Your task to perform on an android device: View the shopping cart on ebay. Search for amazon basics triple a on ebay, select the first entry, add it to the cart, then select checkout. Image 0: 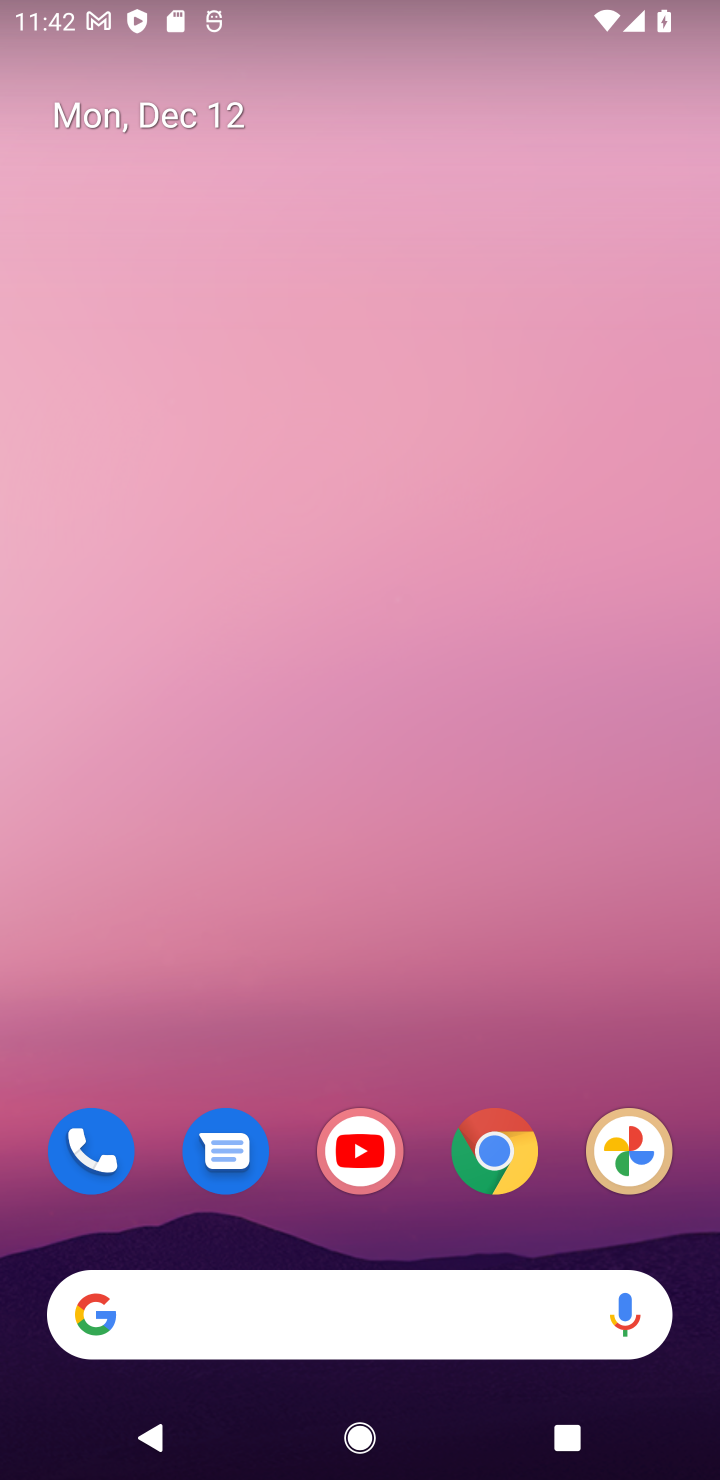
Step 0: drag from (433, 1277) to (439, 568)
Your task to perform on an android device: View the shopping cart on ebay. Search for amazon basics triple a on ebay, select the first entry, add it to the cart, then select checkout. Image 1: 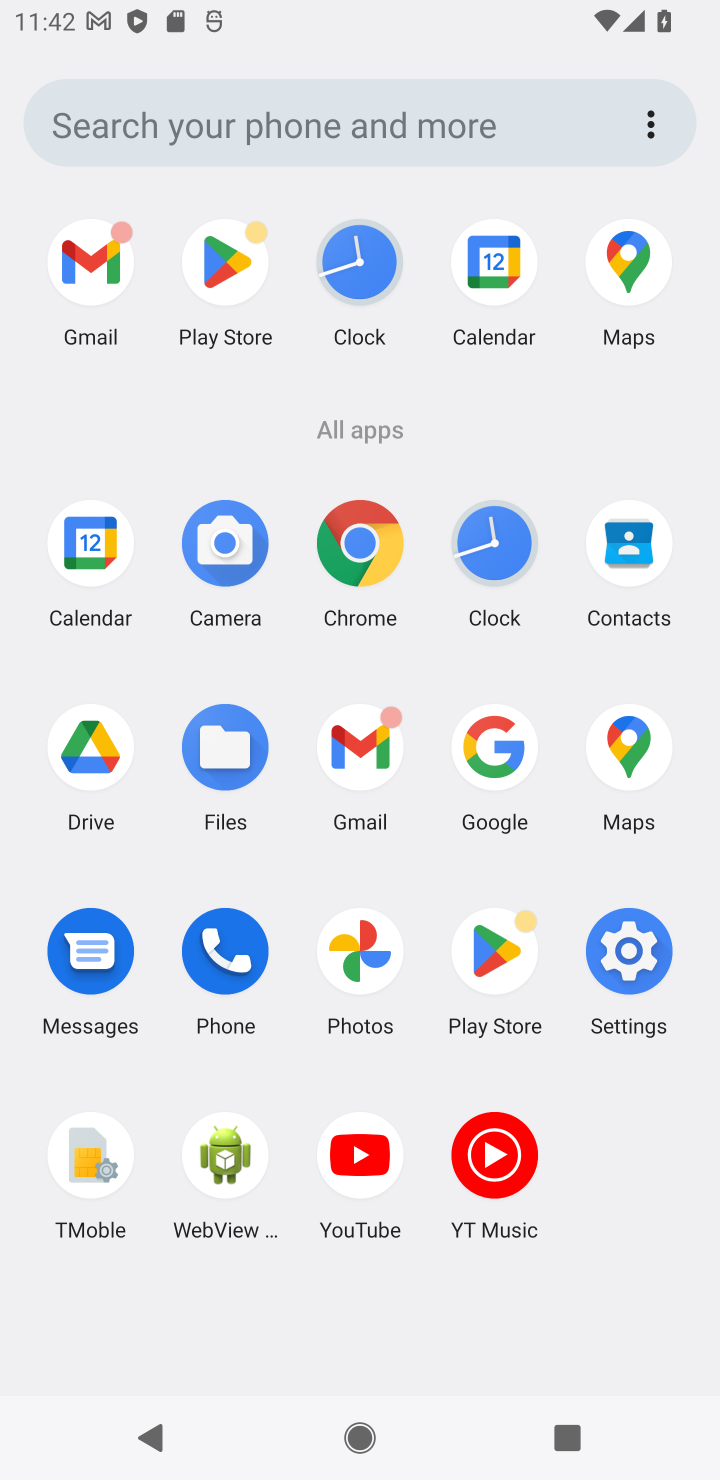
Step 1: click (490, 756)
Your task to perform on an android device: View the shopping cart on ebay. Search for amazon basics triple a on ebay, select the first entry, add it to the cart, then select checkout. Image 2: 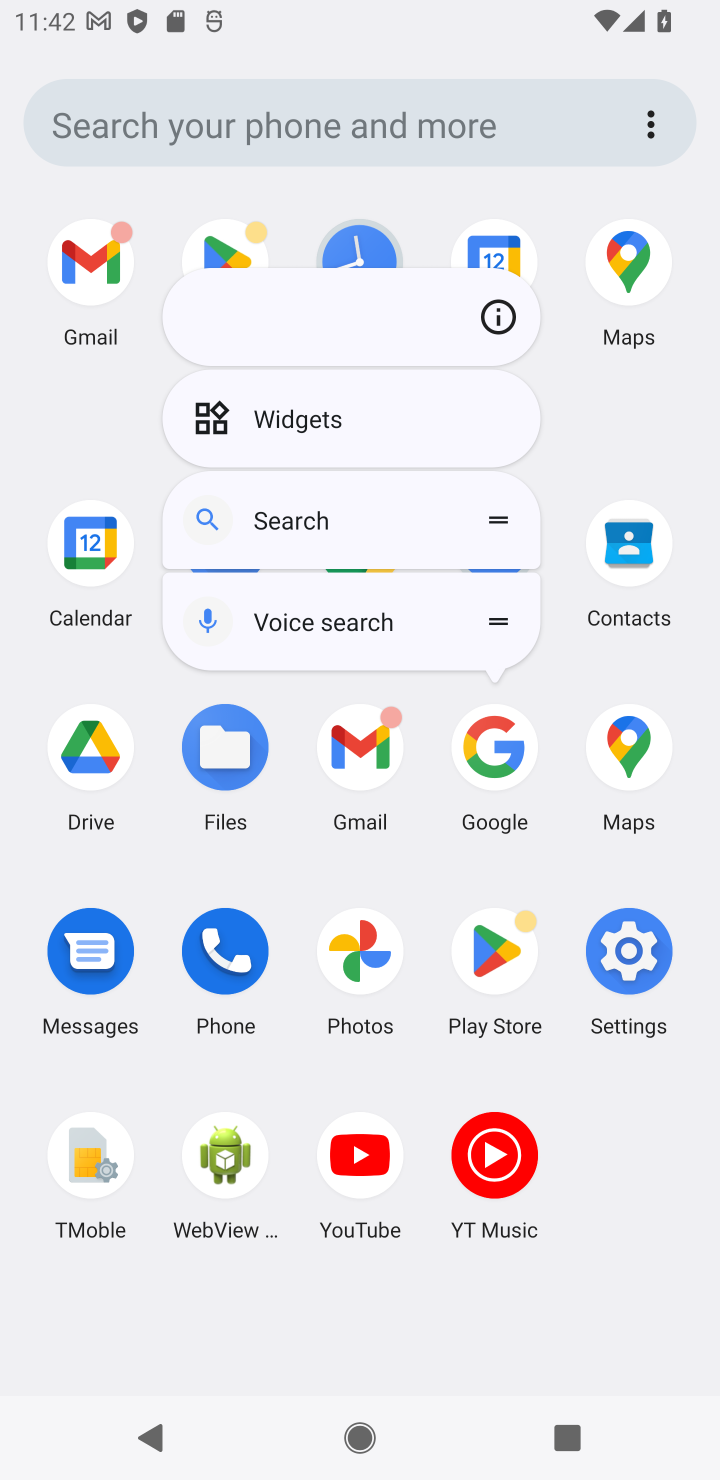
Step 2: click (506, 769)
Your task to perform on an android device: View the shopping cart on ebay. Search for amazon basics triple a on ebay, select the first entry, add it to the cart, then select checkout. Image 3: 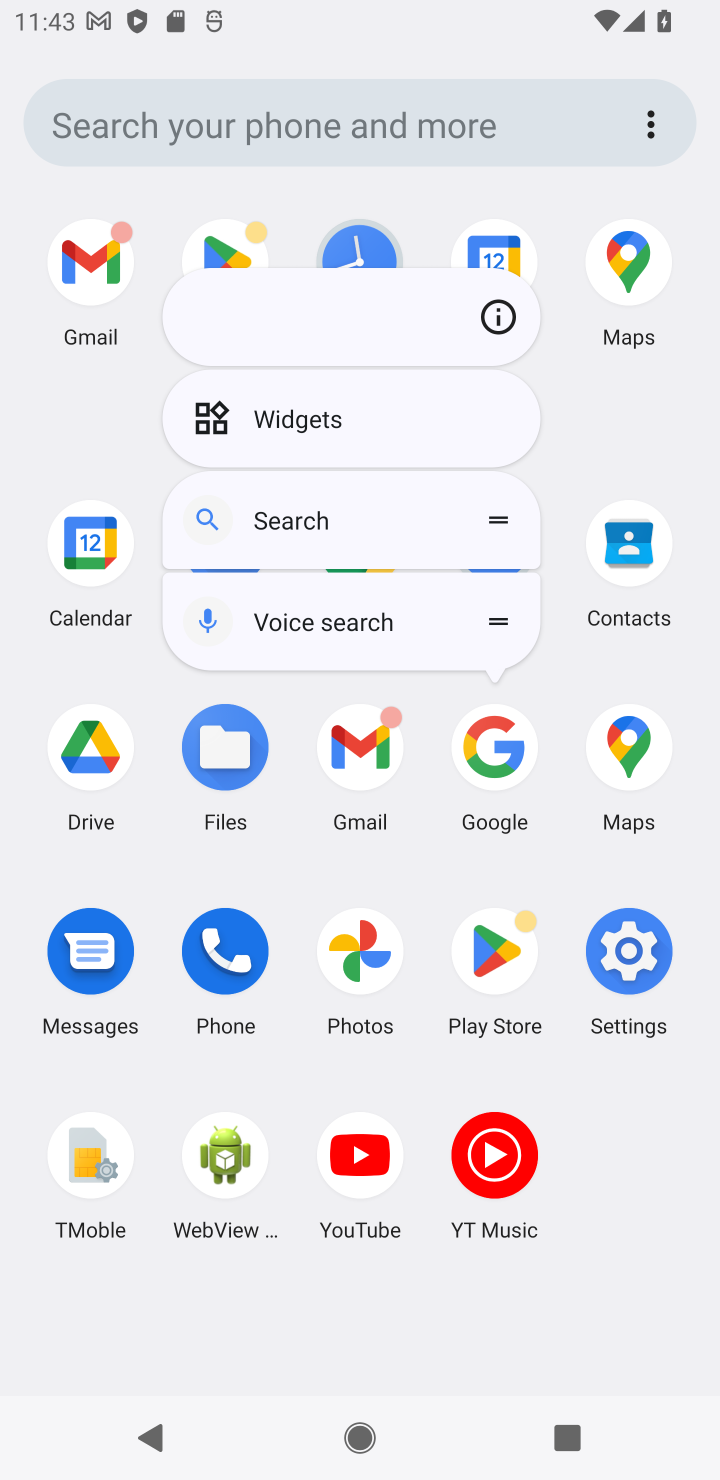
Step 3: click (499, 756)
Your task to perform on an android device: View the shopping cart on ebay. Search for amazon basics triple a on ebay, select the first entry, add it to the cart, then select checkout. Image 4: 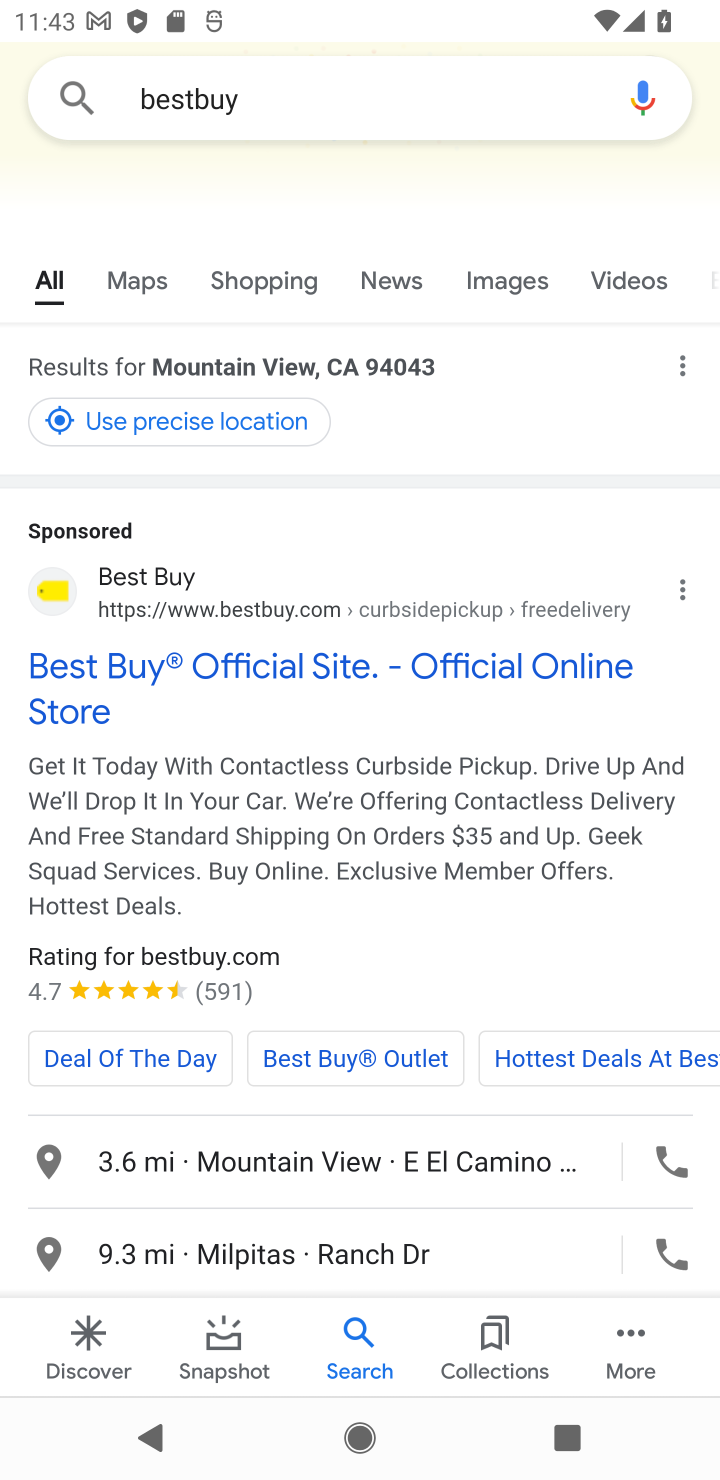
Step 4: click (251, 94)
Your task to perform on an android device: View the shopping cart on ebay. Search for amazon basics triple a on ebay, select the first entry, add it to the cart, then select checkout. Image 5: 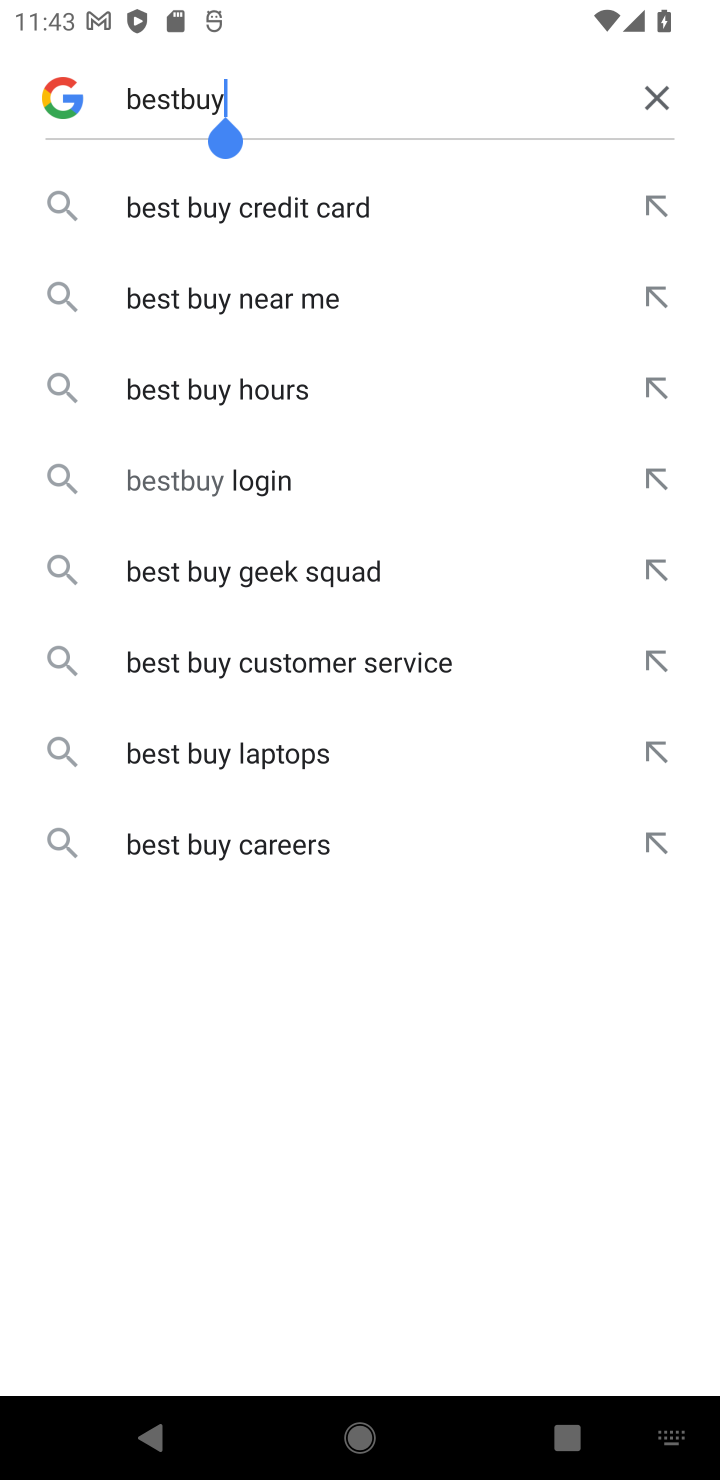
Step 5: click (659, 97)
Your task to perform on an android device: View the shopping cart on ebay. Search for amazon basics triple a on ebay, select the first entry, add it to the cart, then select checkout. Image 6: 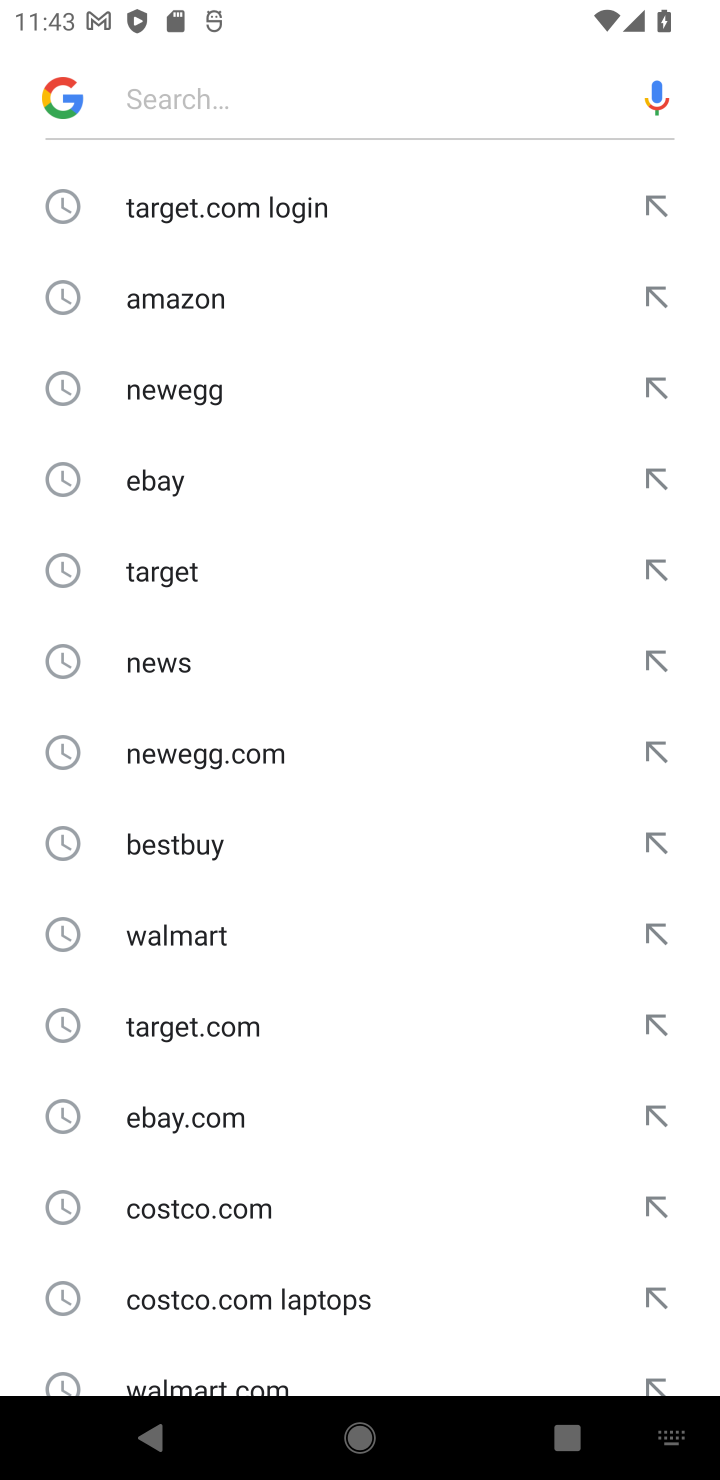
Step 6: click (169, 481)
Your task to perform on an android device: View the shopping cart on ebay. Search for amazon basics triple a on ebay, select the first entry, add it to the cart, then select checkout. Image 7: 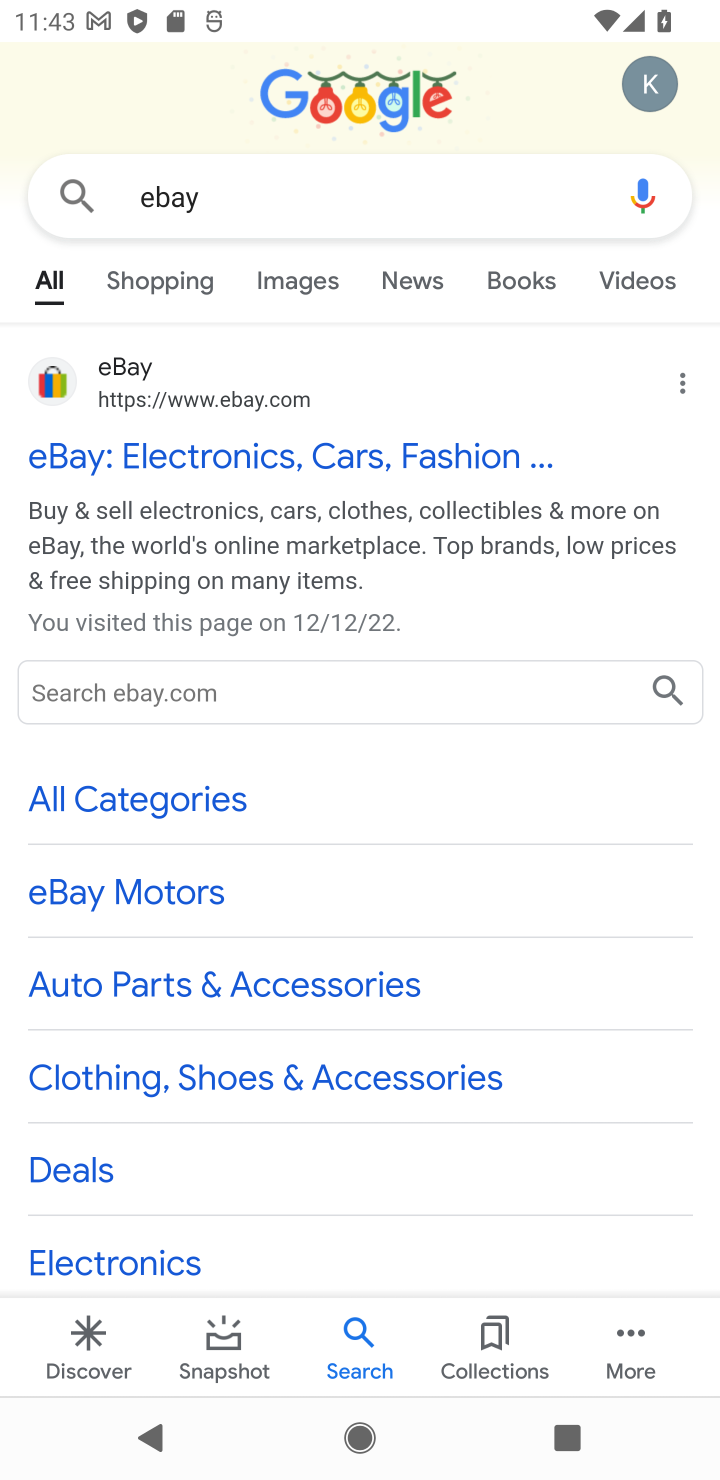
Step 7: click (168, 474)
Your task to perform on an android device: View the shopping cart on ebay. Search for amazon basics triple a on ebay, select the first entry, add it to the cart, then select checkout. Image 8: 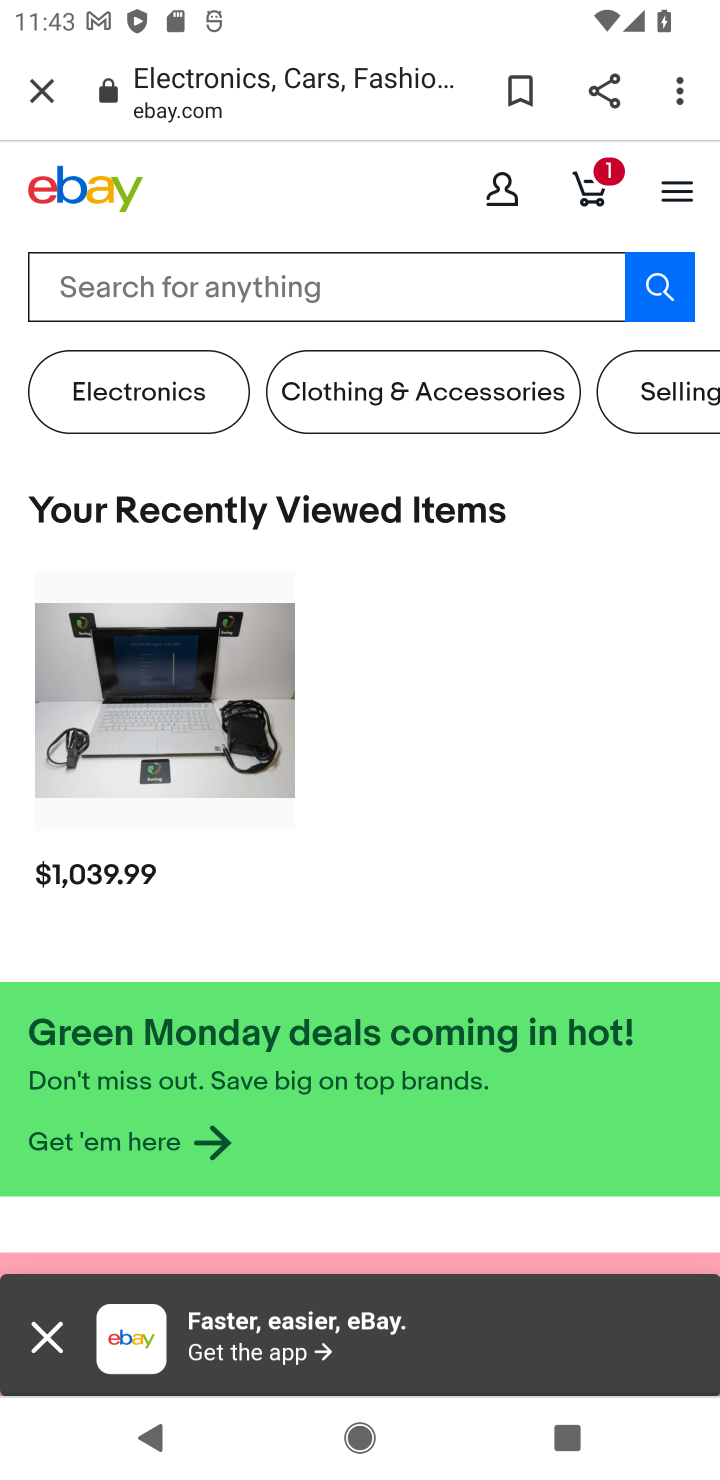
Step 8: click (599, 187)
Your task to perform on an android device: View the shopping cart on ebay. Search for amazon basics triple a on ebay, select the first entry, add it to the cart, then select checkout. Image 9: 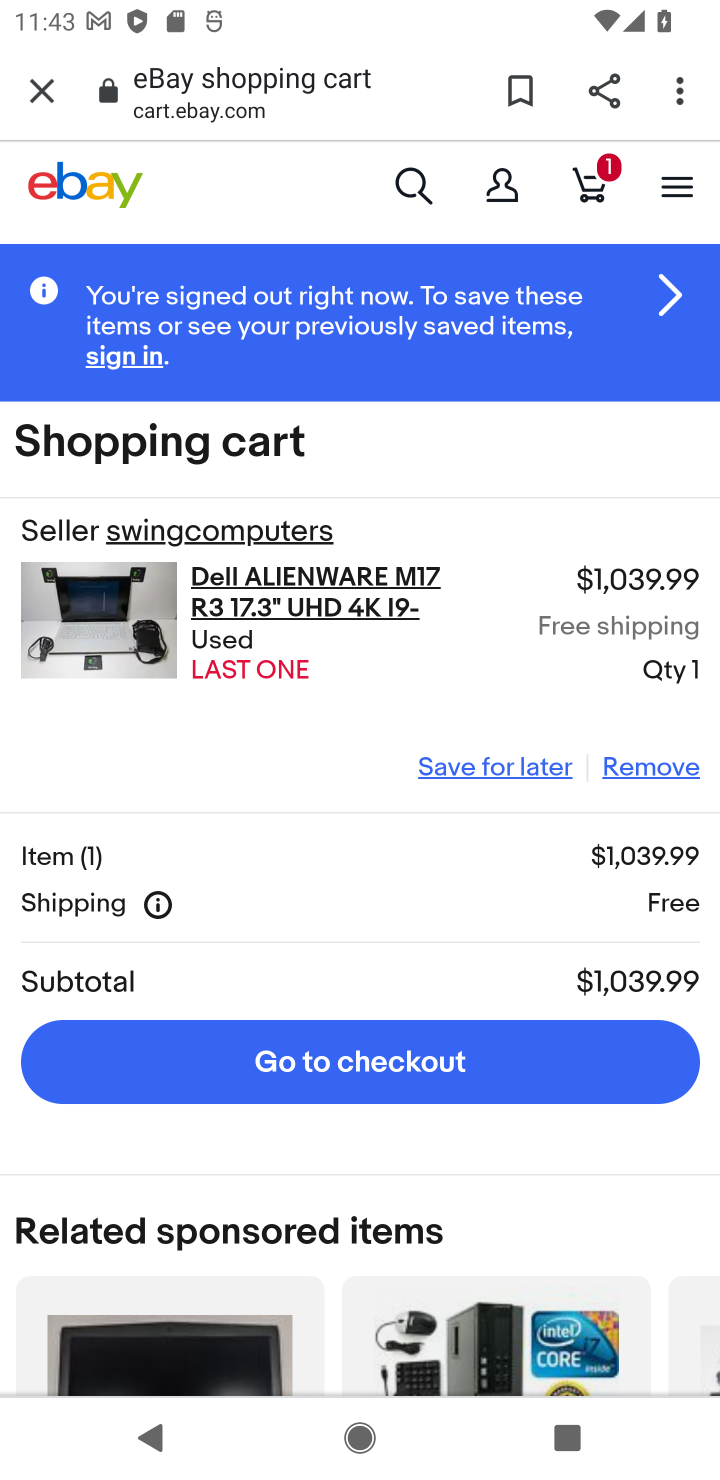
Step 9: click (420, 190)
Your task to perform on an android device: View the shopping cart on ebay. Search for amazon basics triple a on ebay, select the first entry, add it to the cart, then select checkout. Image 10: 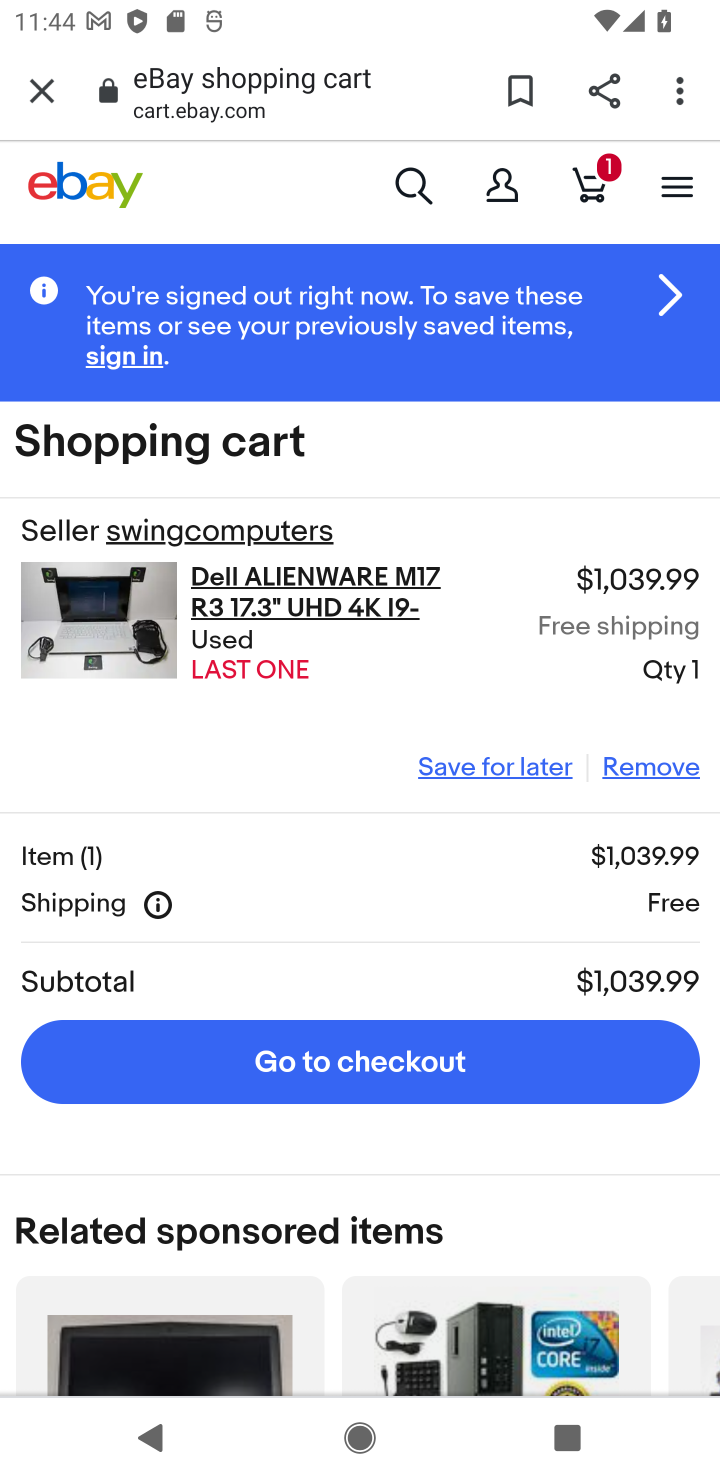
Step 10: click (407, 182)
Your task to perform on an android device: View the shopping cart on ebay. Search for amazon basics triple a on ebay, select the first entry, add it to the cart, then select checkout. Image 11: 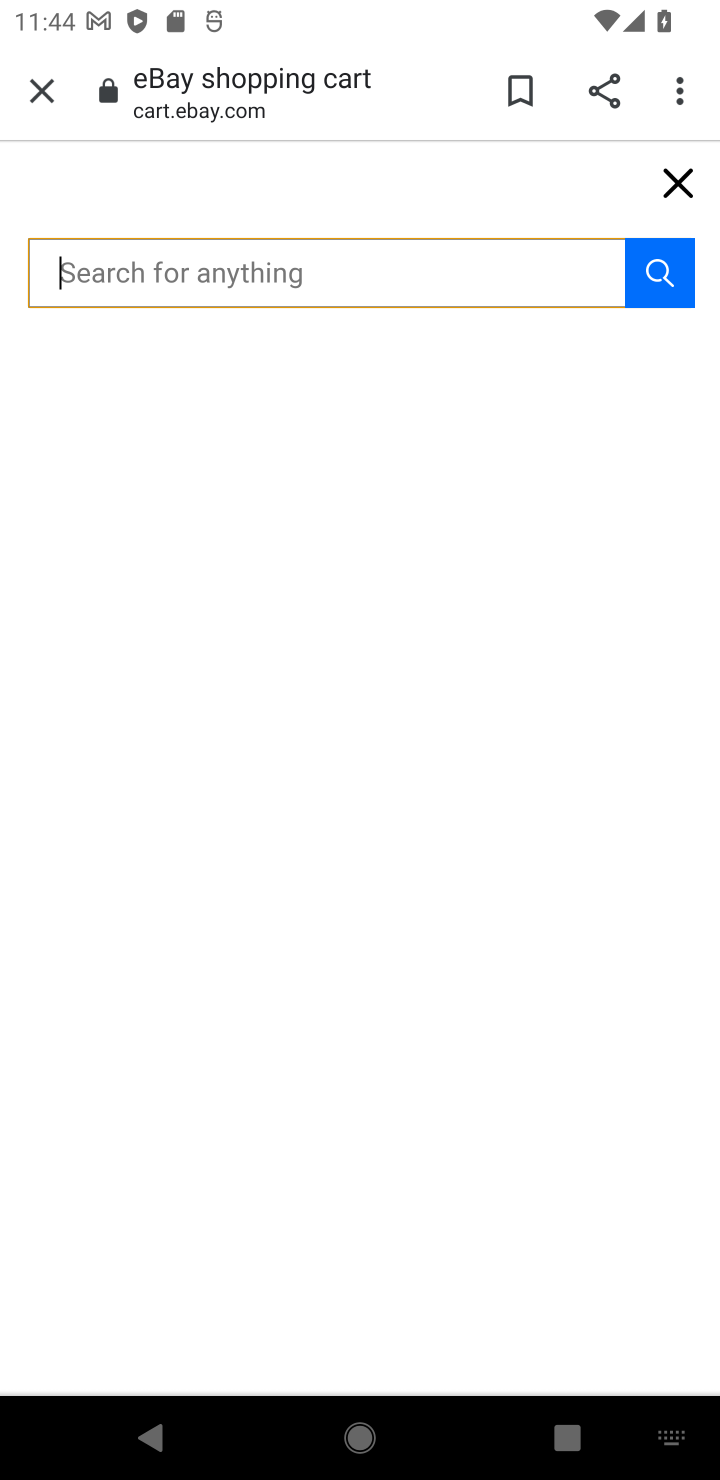
Step 11: type "amazon basics triple a"
Your task to perform on an android device: View the shopping cart on ebay. Search for amazon basics triple a on ebay, select the first entry, add it to the cart, then select checkout. Image 12: 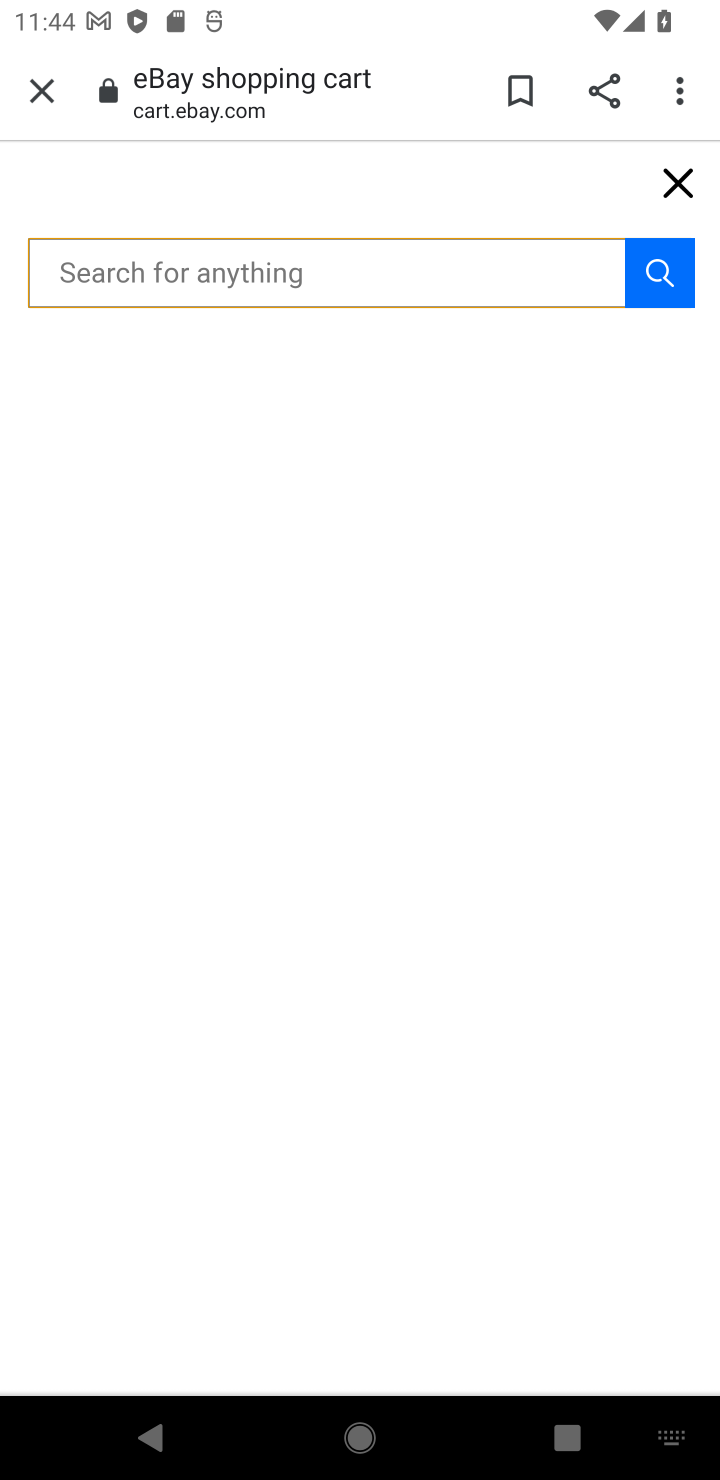
Step 12: click (646, 267)
Your task to perform on an android device: View the shopping cart on ebay. Search for amazon basics triple a on ebay, select the first entry, add it to the cart, then select checkout. Image 13: 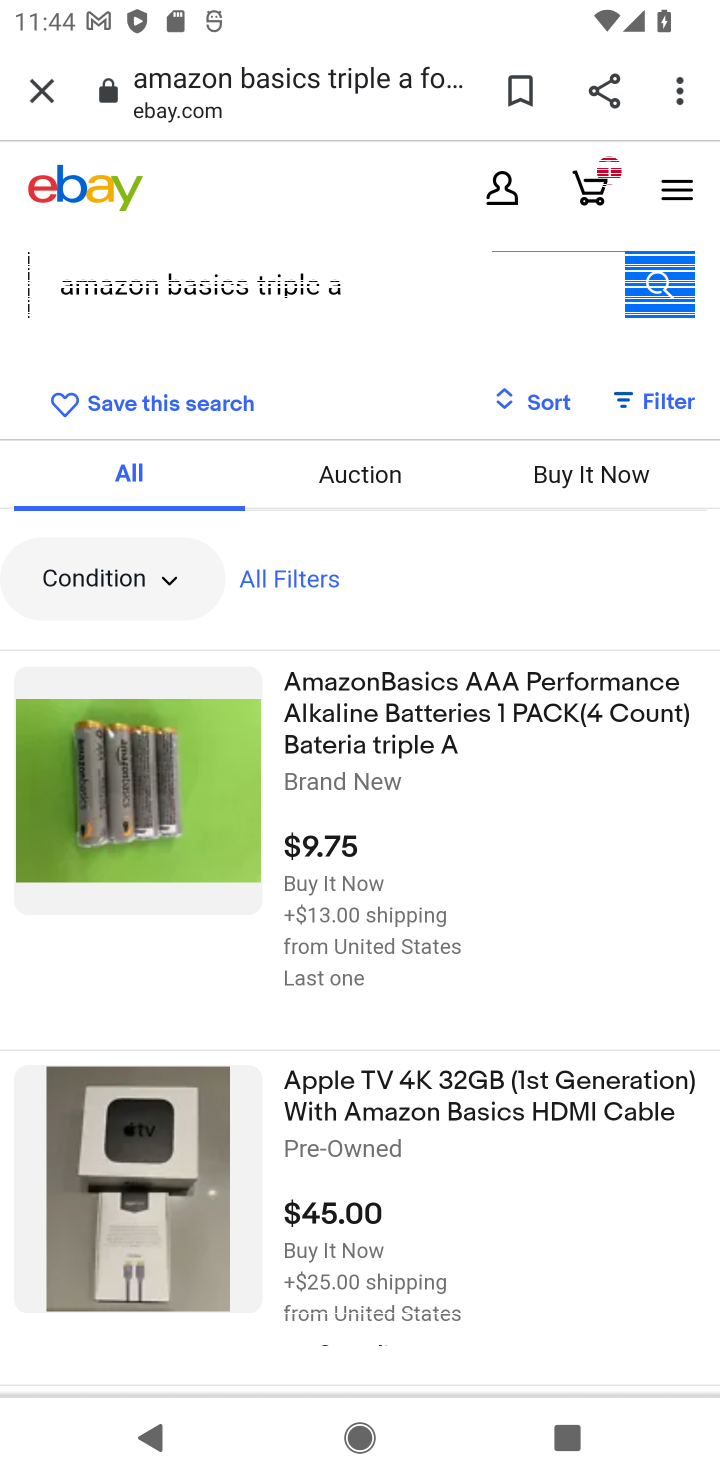
Step 13: click (477, 699)
Your task to perform on an android device: View the shopping cart on ebay. Search for amazon basics triple a on ebay, select the first entry, add it to the cart, then select checkout. Image 14: 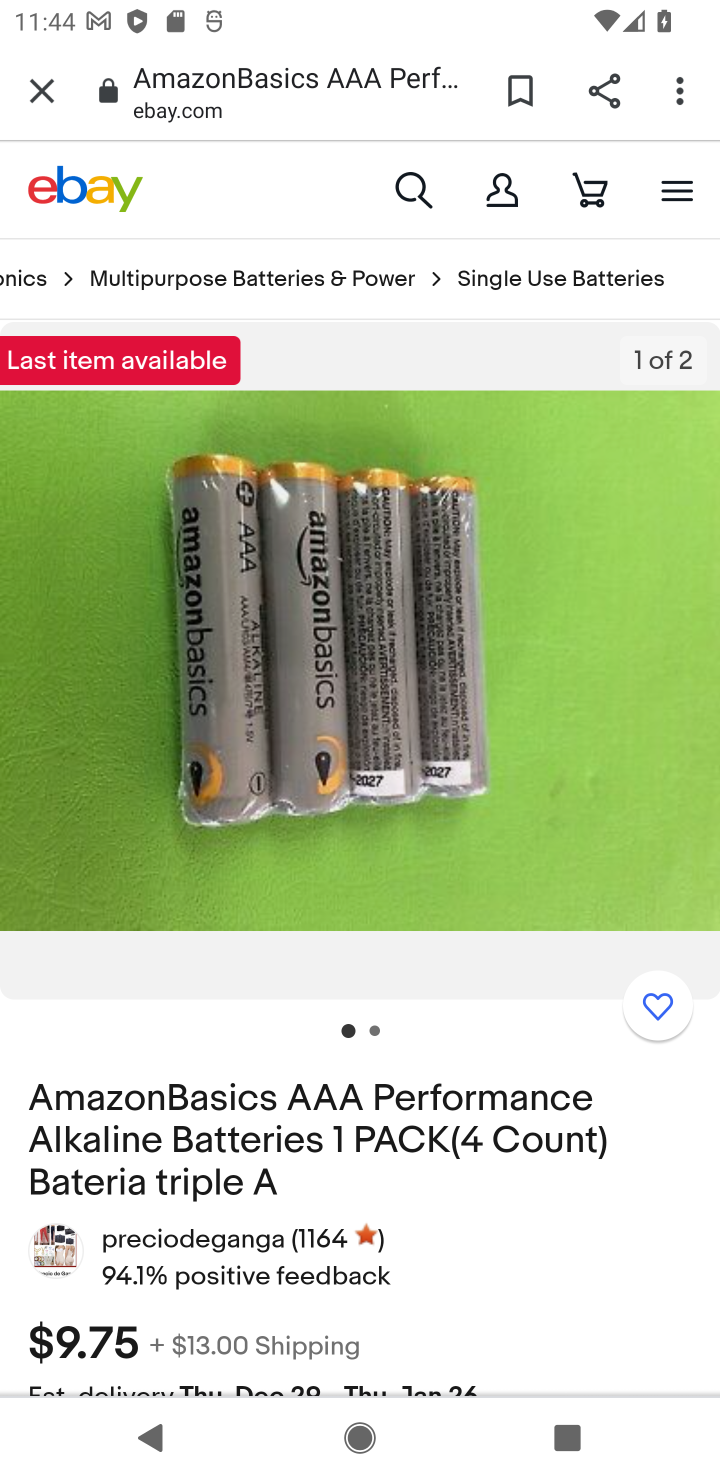
Step 14: drag from (434, 1199) to (428, 665)
Your task to perform on an android device: View the shopping cart on ebay. Search for amazon basics triple a on ebay, select the first entry, add it to the cart, then select checkout. Image 15: 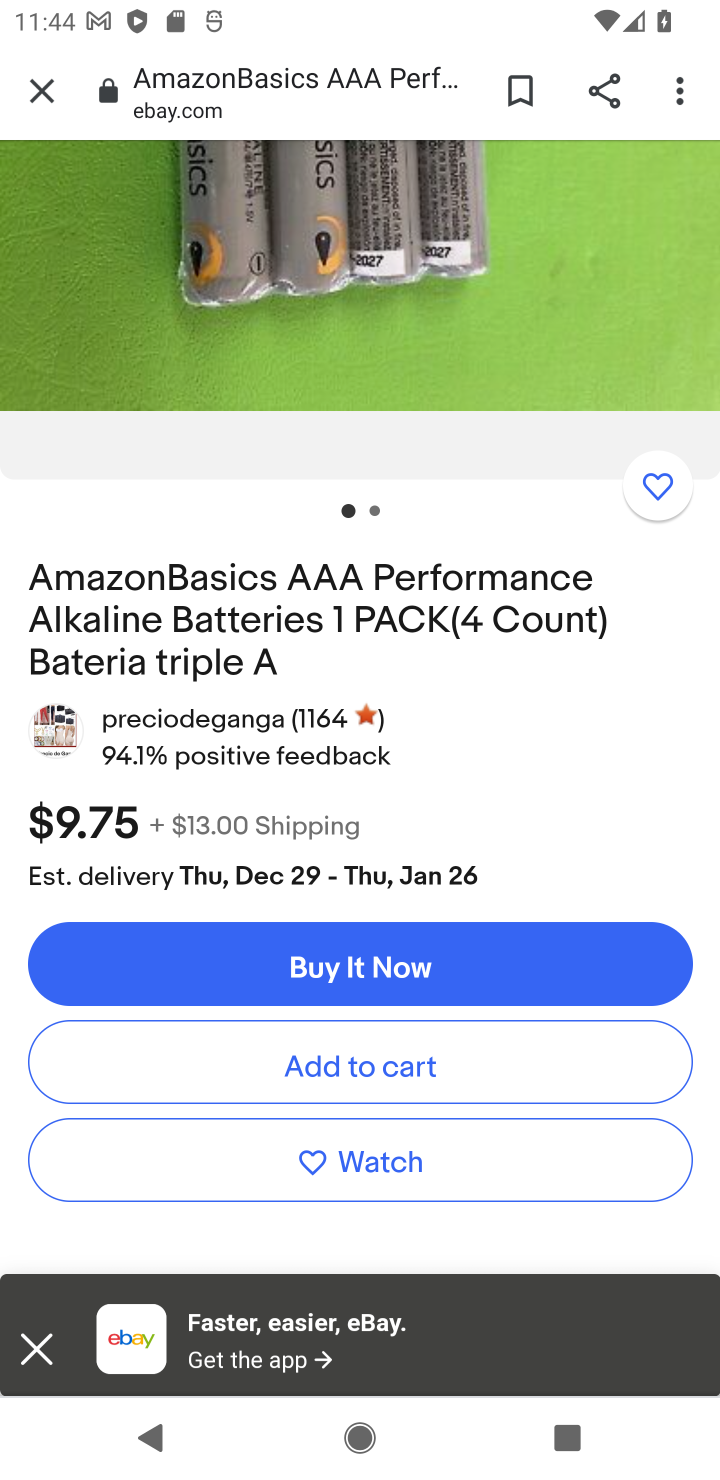
Step 15: click (363, 1067)
Your task to perform on an android device: View the shopping cart on ebay. Search for amazon basics triple a on ebay, select the first entry, add it to the cart, then select checkout. Image 16: 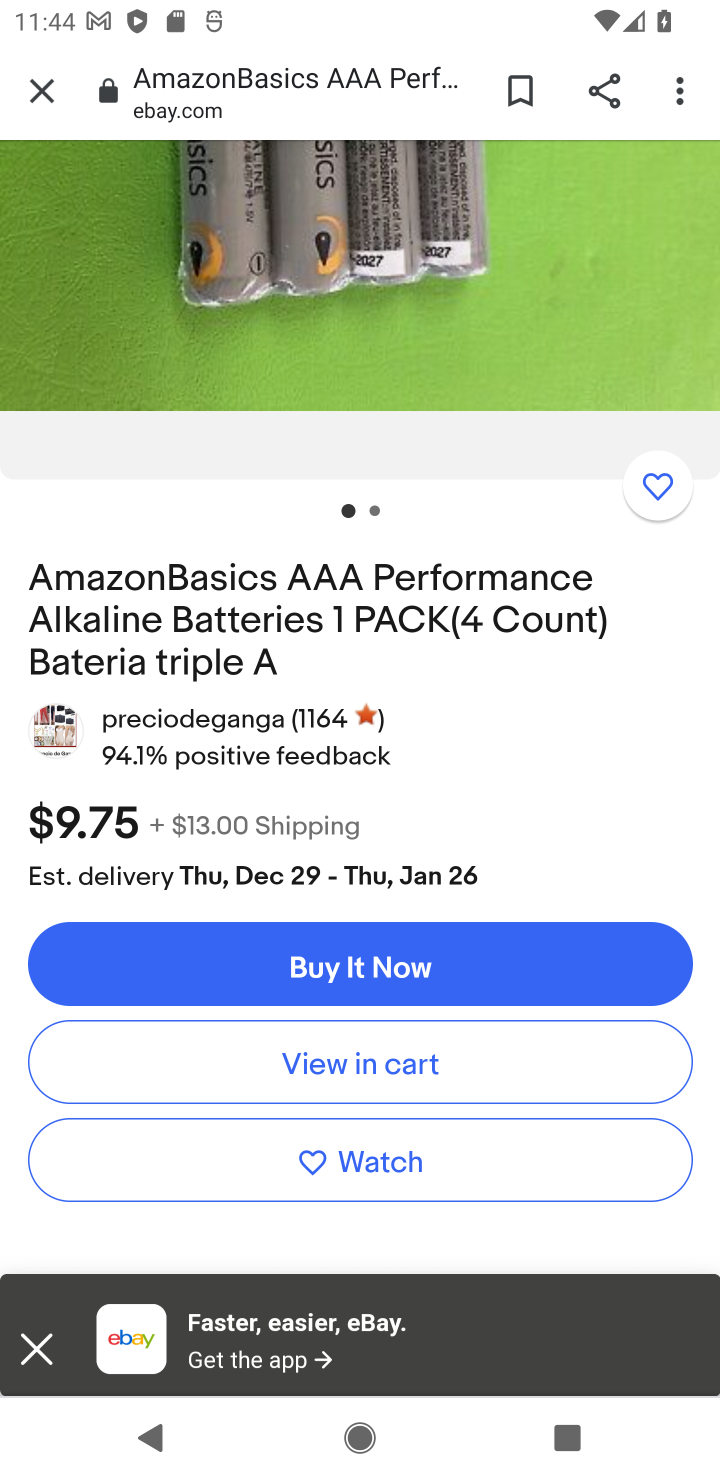
Step 16: click (363, 1067)
Your task to perform on an android device: View the shopping cart on ebay. Search for amazon basics triple a on ebay, select the first entry, add it to the cart, then select checkout. Image 17: 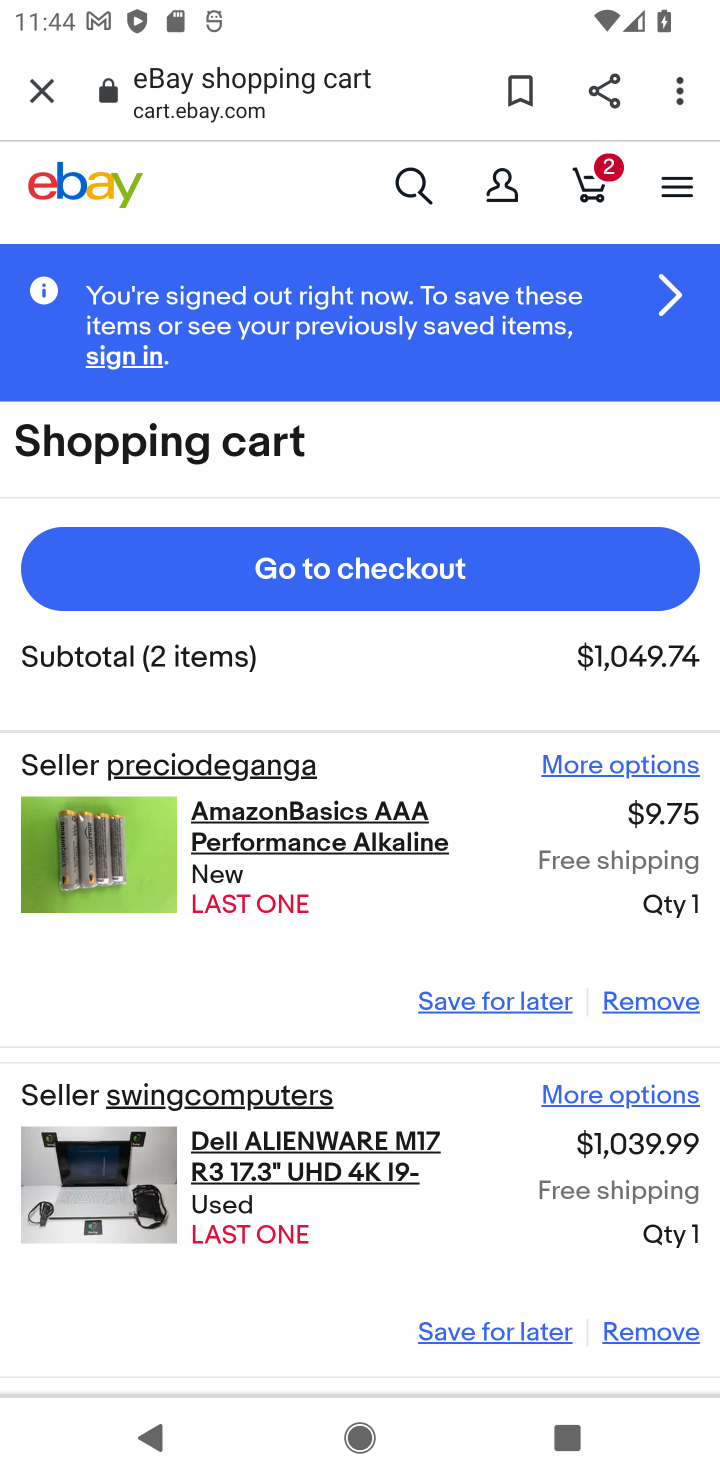
Step 17: click (345, 581)
Your task to perform on an android device: View the shopping cart on ebay. Search for amazon basics triple a on ebay, select the first entry, add it to the cart, then select checkout. Image 18: 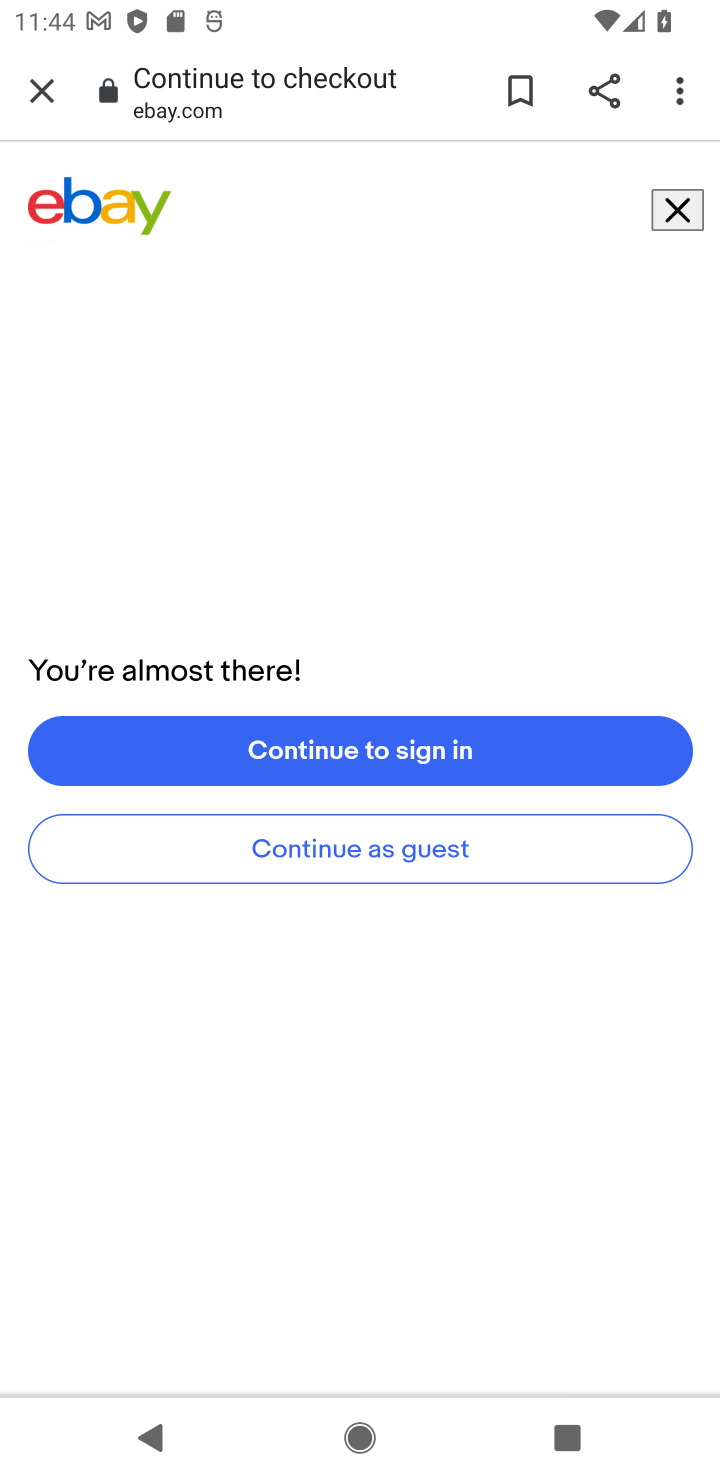
Step 18: task complete